Your task to perform on an android device: Check the weather Image 0: 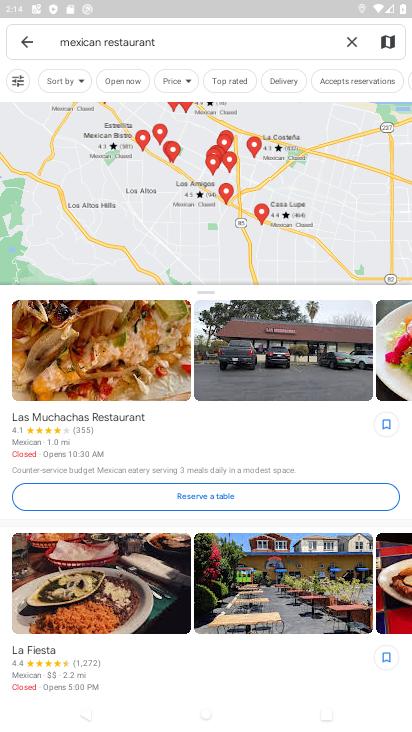
Step 0: press home button
Your task to perform on an android device: Check the weather Image 1: 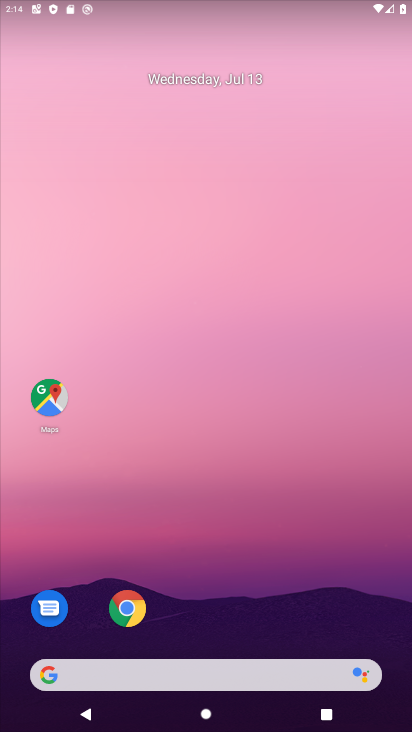
Step 1: click (156, 671)
Your task to perform on an android device: Check the weather Image 2: 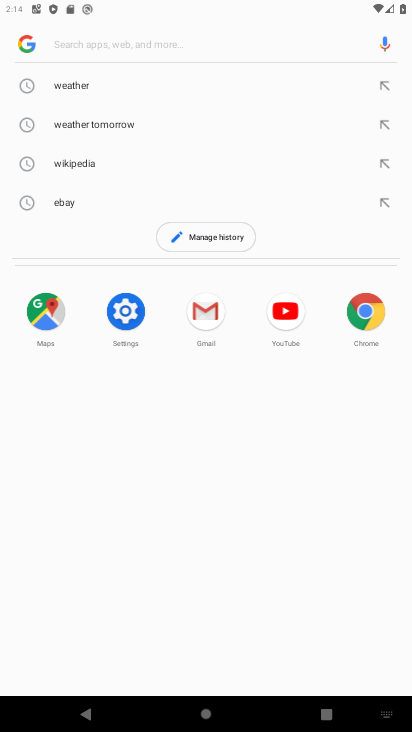
Step 2: click (69, 89)
Your task to perform on an android device: Check the weather Image 3: 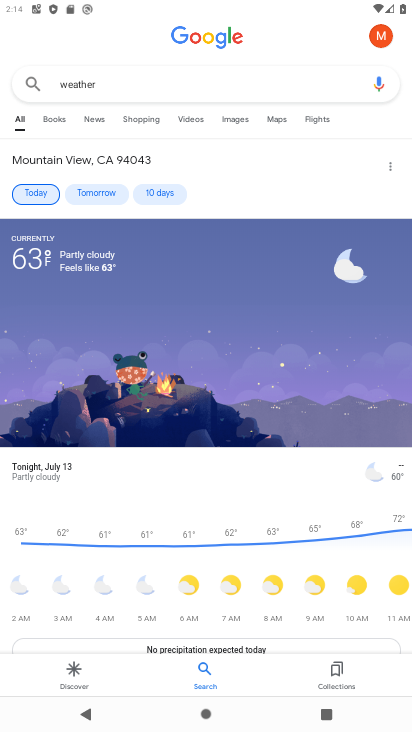
Step 3: task complete